Your task to perform on an android device: Open the calendar and show me this week's events Image 0: 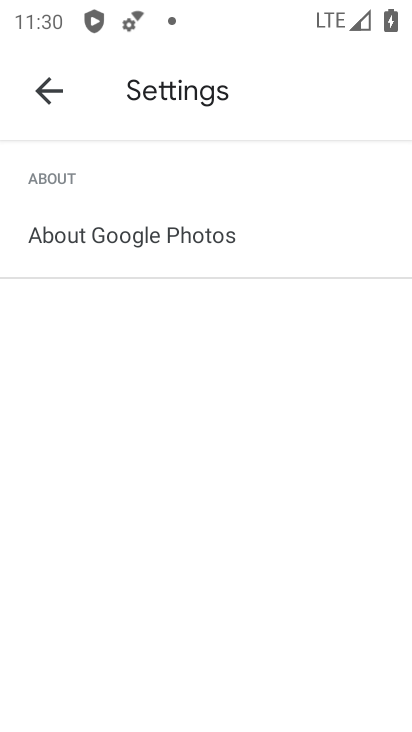
Step 0: press home button
Your task to perform on an android device: Open the calendar and show me this week's events Image 1: 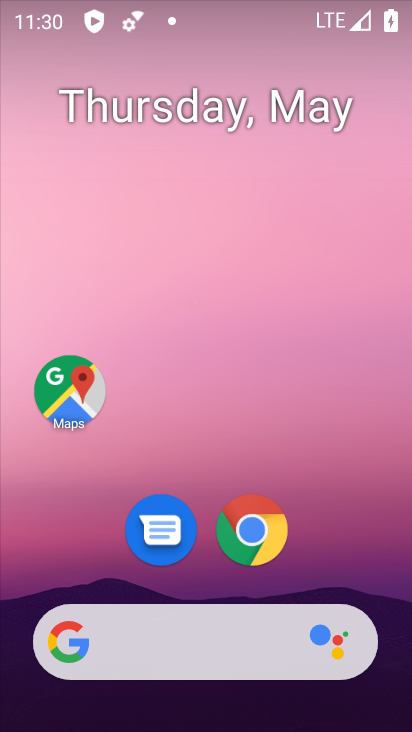
Step 1: drag from (182, 708) to (182, 20)
Your task to perform on an android device: Open the calendar and show me this week's events Image 2: 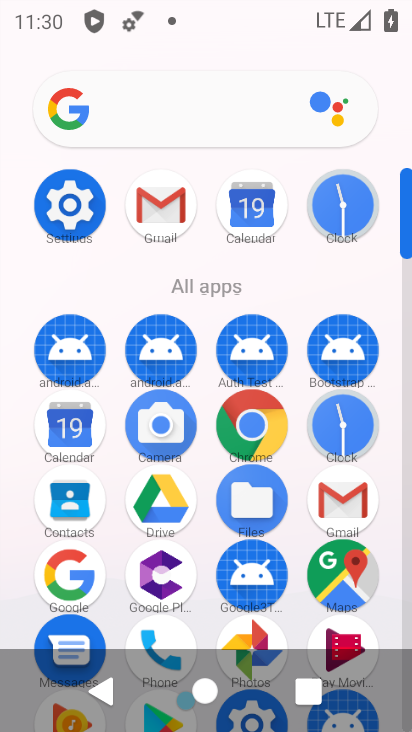
Step 2: click (77, 439)
Your task to perform on an android device: Open the calendar and show me this week's events Image 3: 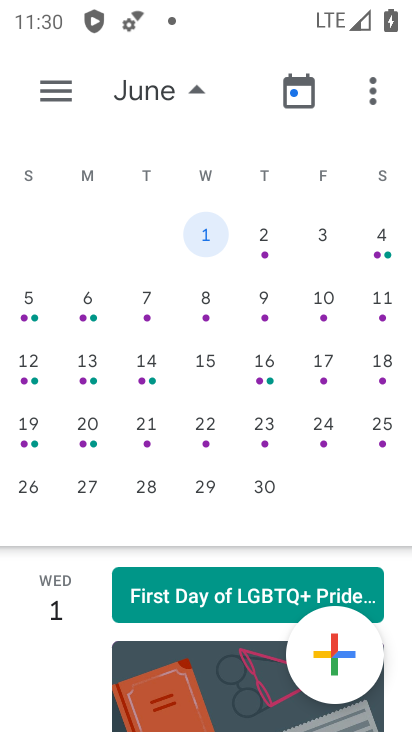
Step 3: drag from (122, 320) to (403, 335)
Your task to perform on an android device: Open the calendar and show me this week's events Image 4: 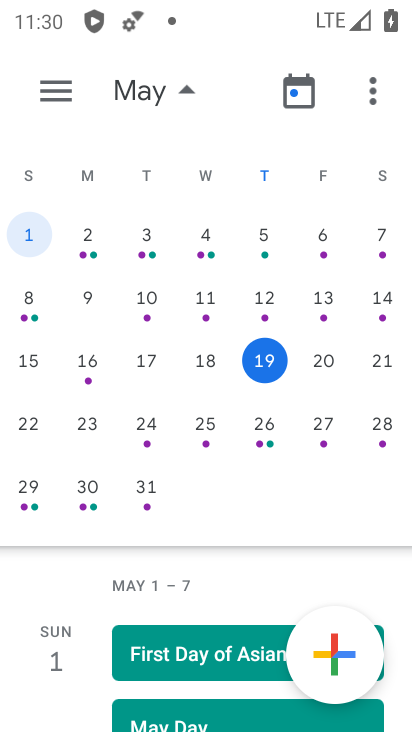
Step 4: click (387, 365)
Your task to perform on an android device: Open the calendar and show me this week's events Image 5: 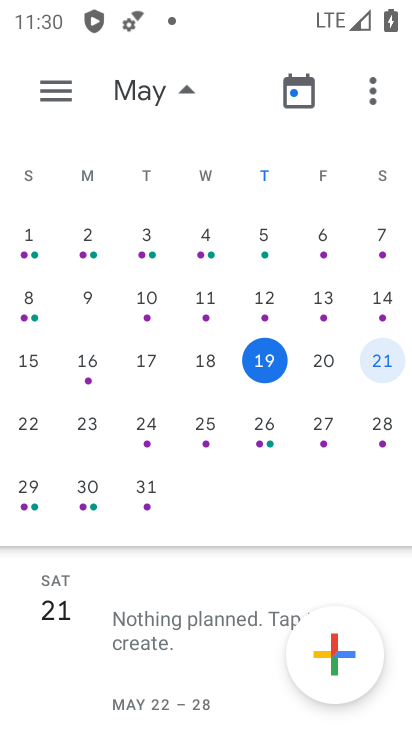
Step 5: task complete